Your task to perform on an android device: open sync settings in chrome Image 0: 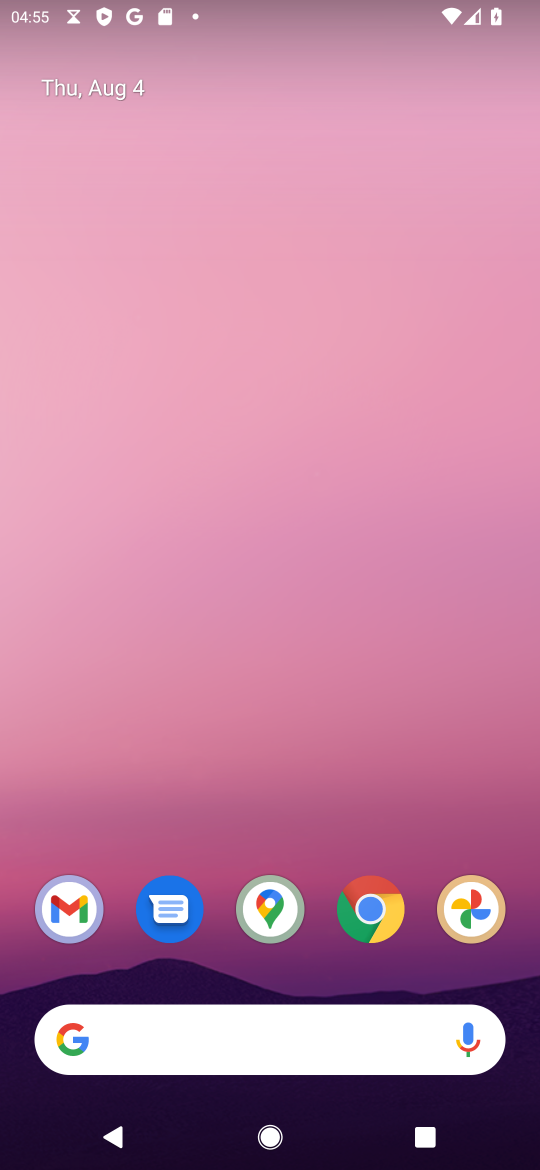
Step 0: click (379, 912)
Your task to perform on an android device: open sync settings in chrome Image 1: 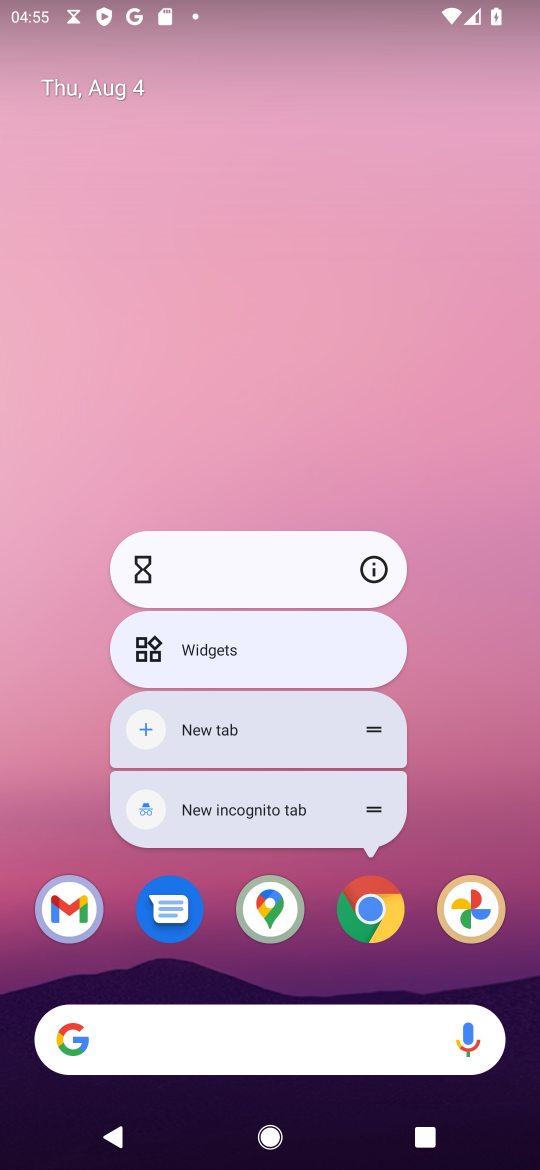
Step 1: click (366, 919)
Your task to perform on an android device: open sync settings in chrome Image 2: 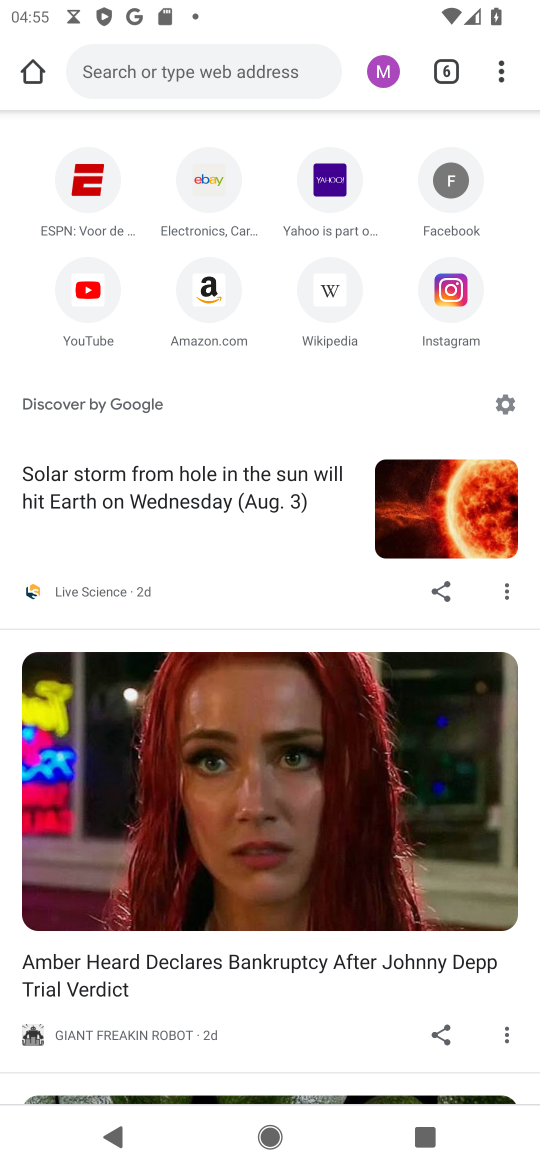
Step 2: drag from (501, 67) to (329, 730)
Your task to perform on an android device: open sync settings in chrome Image 3: 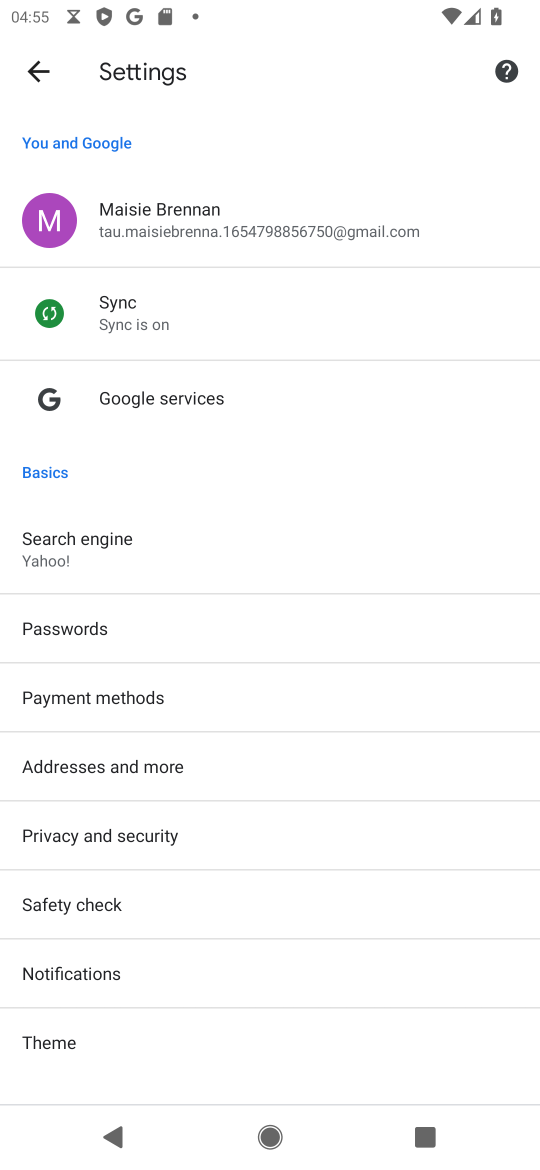
Step 3: click (187, 297)
Your task to perform on an android device: open sync settings in chrome Image 4: 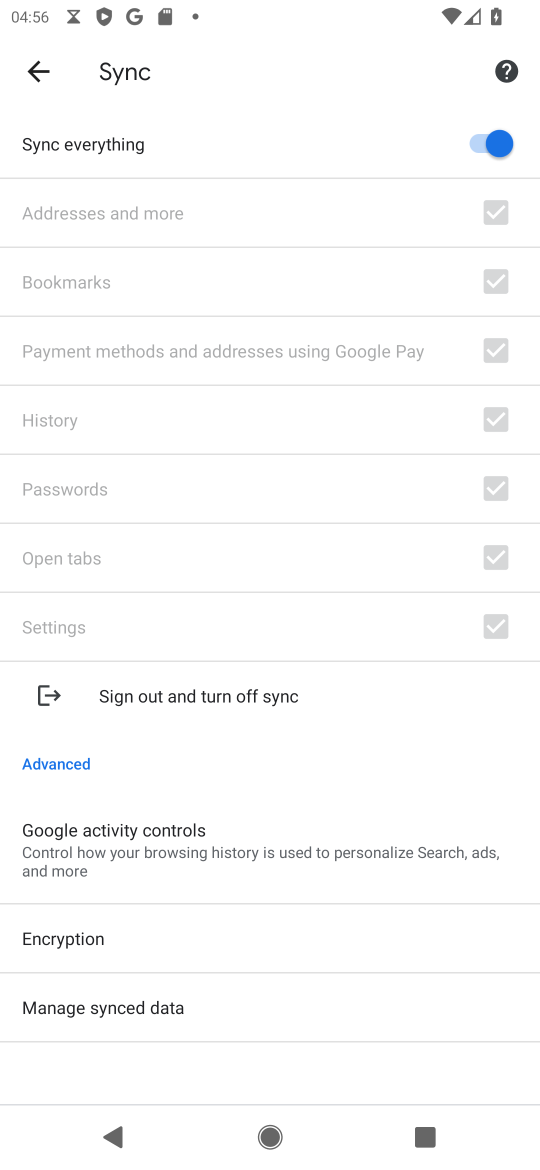
Step 4: task complete